Your task to perform on an android device: Go to Reddit.com Image 0: 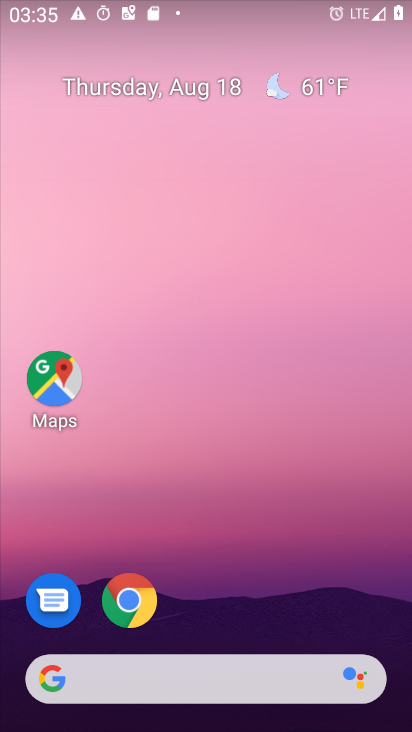
Step 0: press home button
Your task to perform on an android device: Go to Reddit.com Image 1: 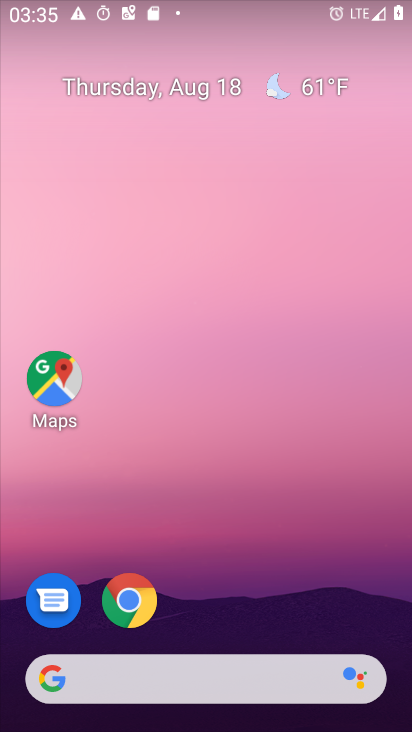
Step 1: drag from (215, 631) to (195, 94)
Your task to perform on an android device: Go to Reddit.com Image 2: 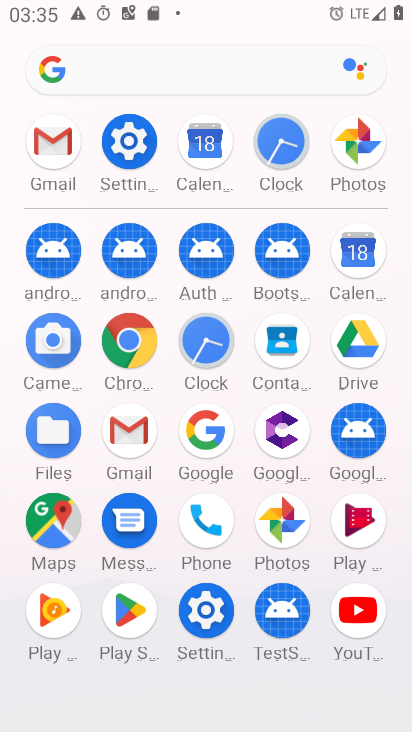
Step 2: click (216, 452)
Your task to perform on an android device: Go to Reddit.com Image 3: 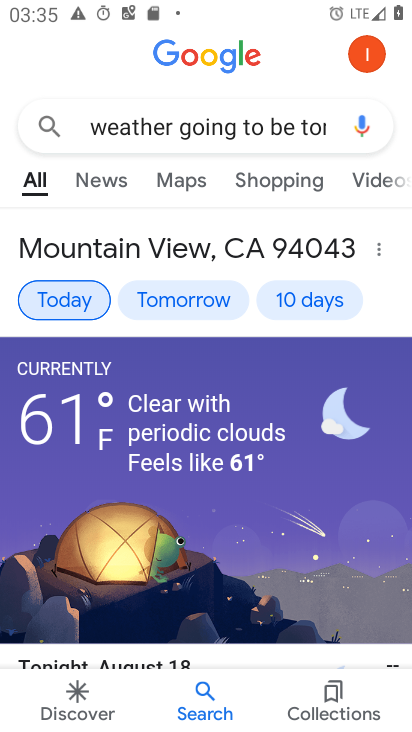
Step 3: click (320, 127)
Your task to perform on an android device: Go to Reddit.com Image 4: 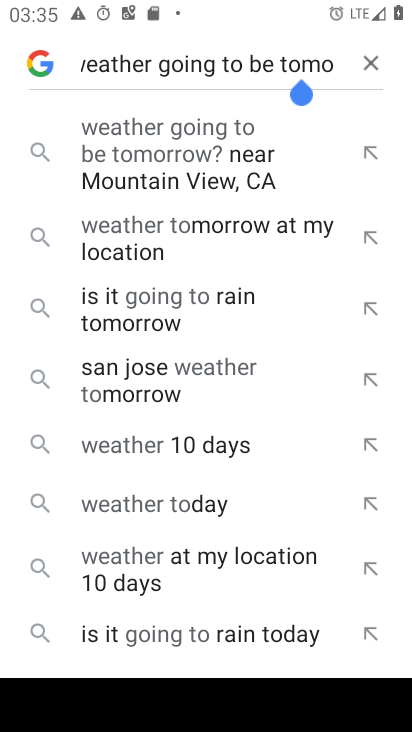
Step 4: click (365, 65)
Your task to perform on an android device: Go to Reddit.com Image 5: 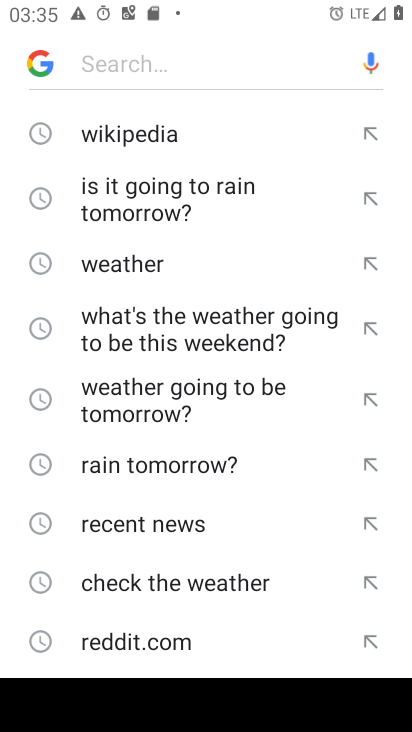
Step 5: type " Reddit.com"
Your task to perform on an android device: Go to Reddit.com Image 6: 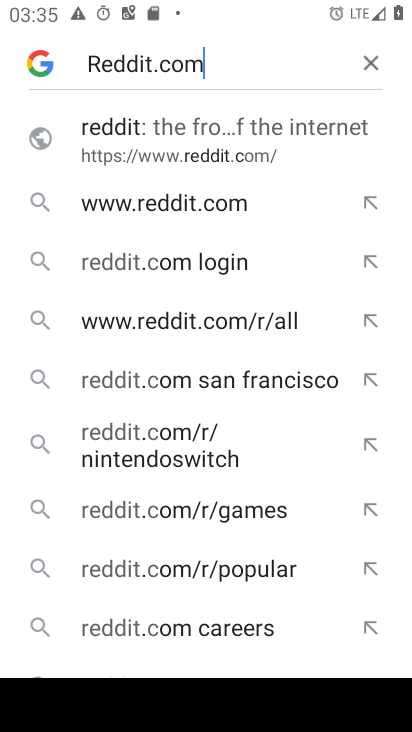
Step 6: press enter
Your task to perform on an android device: Go to Reddit.com Image 7: 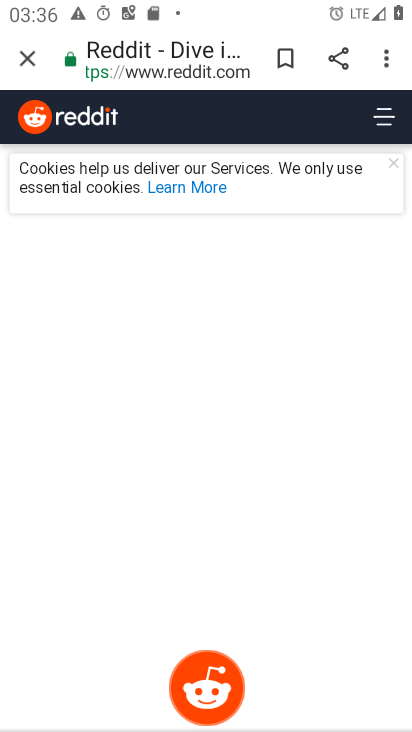
Step 7: task complete